Your task to perform on an android device: change your default location settings in chrome Image 0: 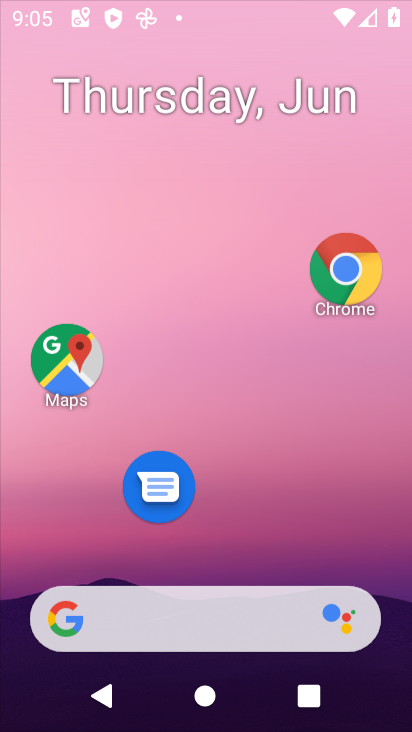
Step 0: click (274, 160)
Your task to perform on an android device: change your default location settings in chrome Image 1: 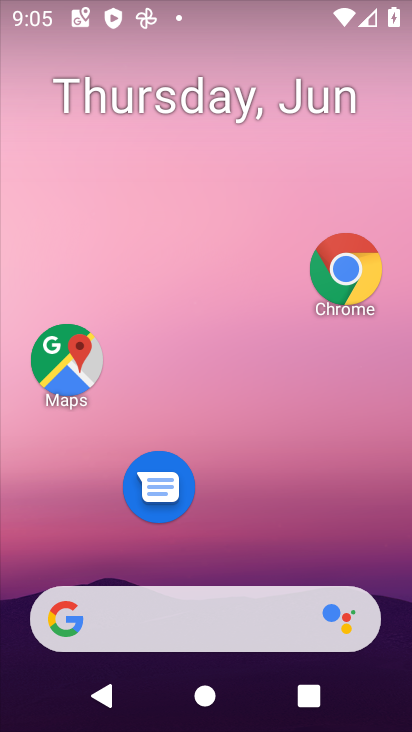
Step 1: drag from (211, 552) to (182, 7)
Your task to perform on an android device: change your default location settings in chrome Image 2: 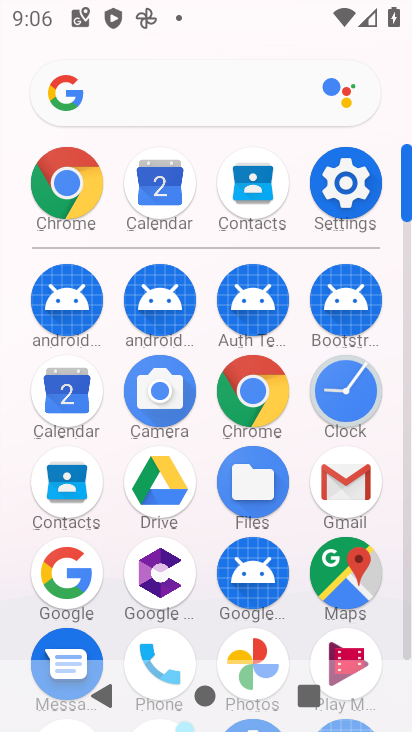
Step 2: drag from (213, 514) to (204, 108)
Your task to perform on an android device: change your default location settings in chrome Image 3: 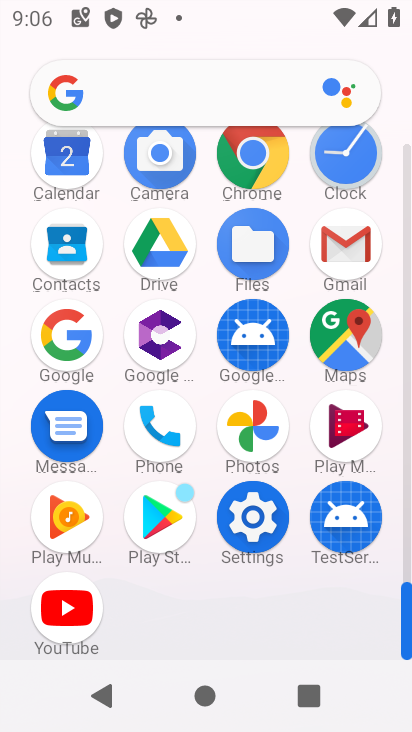
Step 3: click (251, 151)
Your task to perform on an android device: change your default location settings in chrome Image 4: 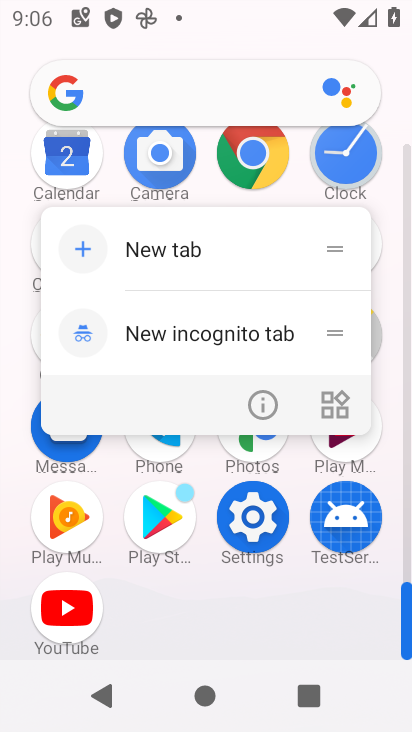
Step 4: click (255, 399)
Your task to perform on an android device: change your default location settings in chrome Image 5: 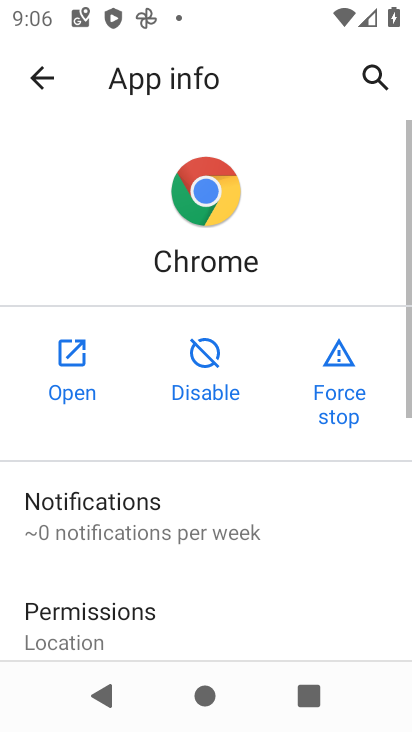
Step 5: click (70, 358)
Your task to perform on an android device: change your default location settings in chrome Image 6: 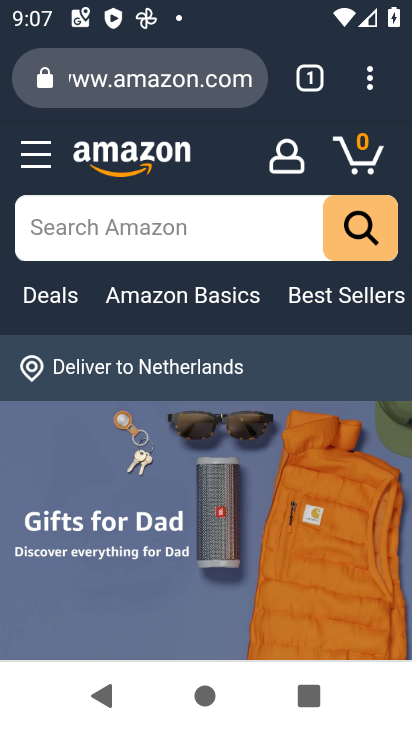
Step 6: drag from (374, 78) to (196, 544)
Your task to perform on an android device: change your default location settings in chrome Image 7: 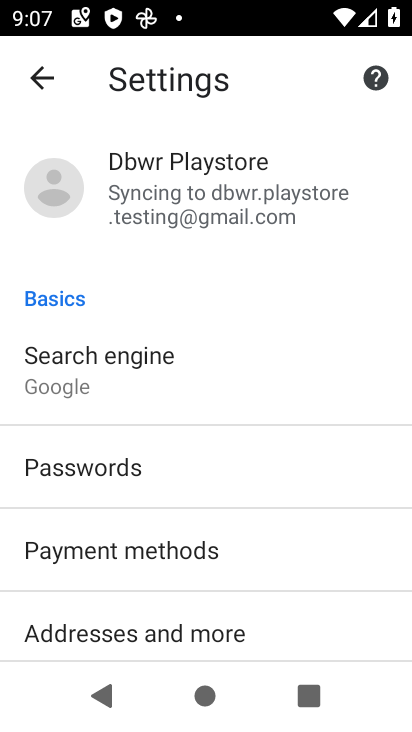
Step 7: drag from (200, 583) to (217, 110)
Your task to perform on an android device: change your default location settings in chrome Image 8: 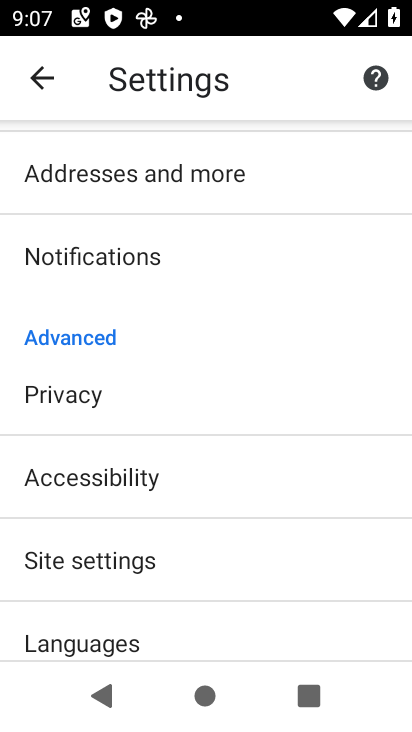
Step 8: drag from (179, 580) to (195, 308)
Your task to perform on an android device: change your default location settings in chrome Image 9: 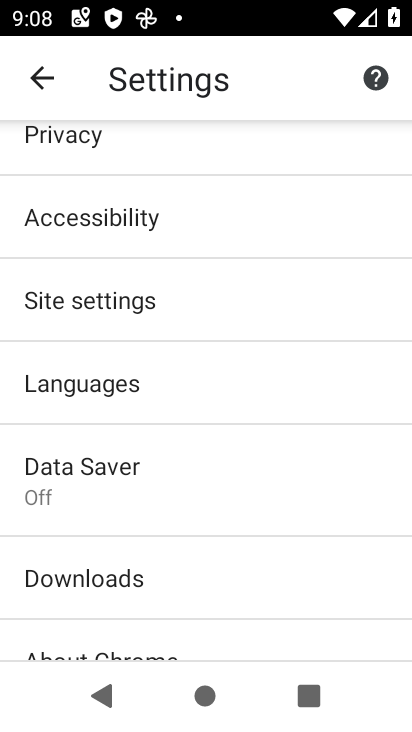
Step 9: click (145, 281)
Your task to perform on an android device: change your default location settings in chrome Image 10: 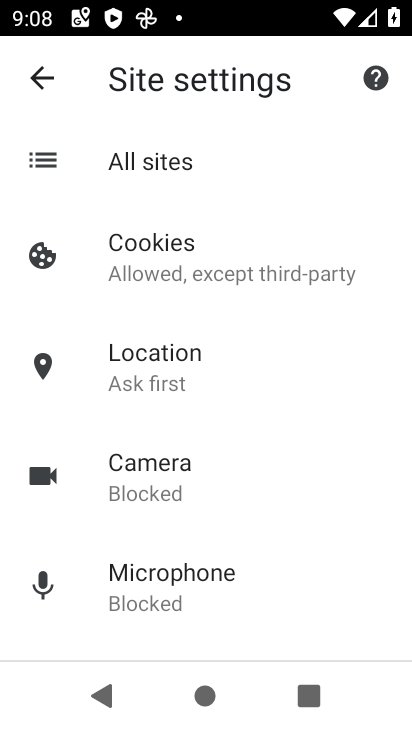
Step 10: click (197, 377)
Your task to perform on an android device: change your default location settings in chrome Image 11: 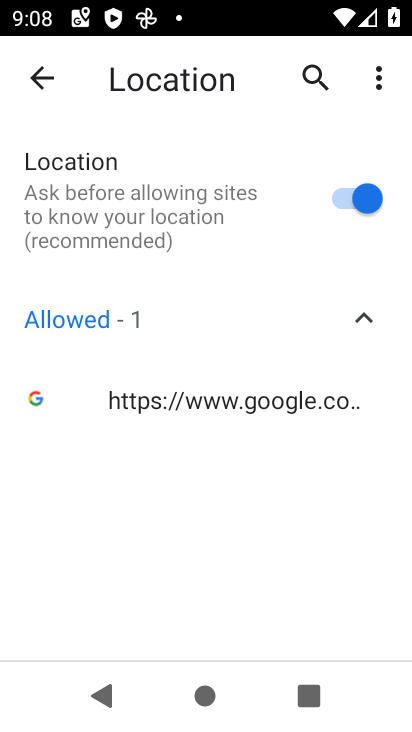
Step 11: drag from (193, 480) to (245, 141)
Your task to perform on an android device: change your default location settings in chrome Image 12: 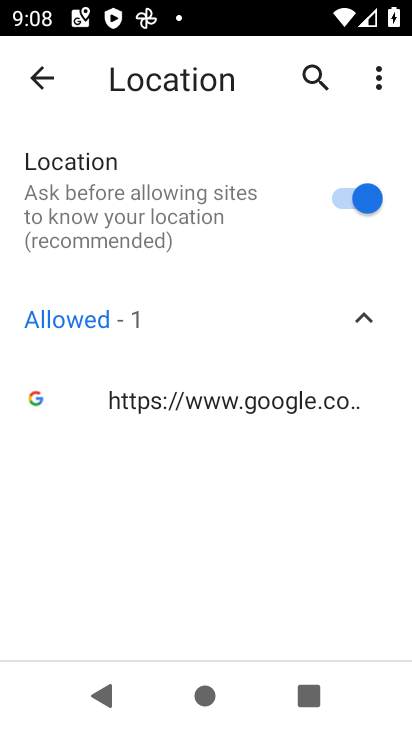
Step 12: drag from (229, 570) to (236, 115)
Your task to perform on an android device: change your default location settings in chrome Image 13: 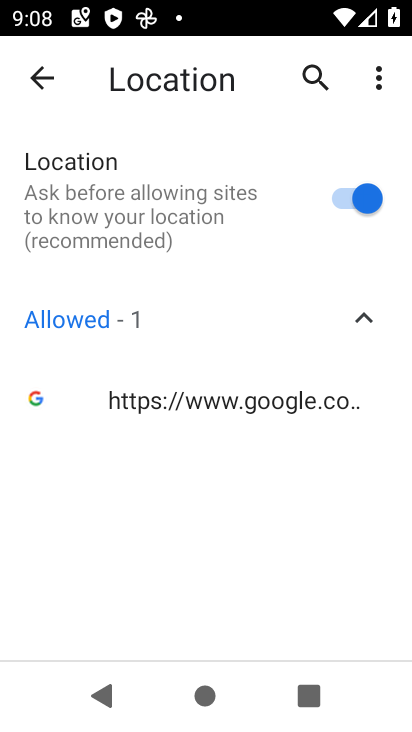
Step 13: drag from (199, 578) to (269, 195)
Your task to perform on an android device: change your default location settings in chrome Image 14: 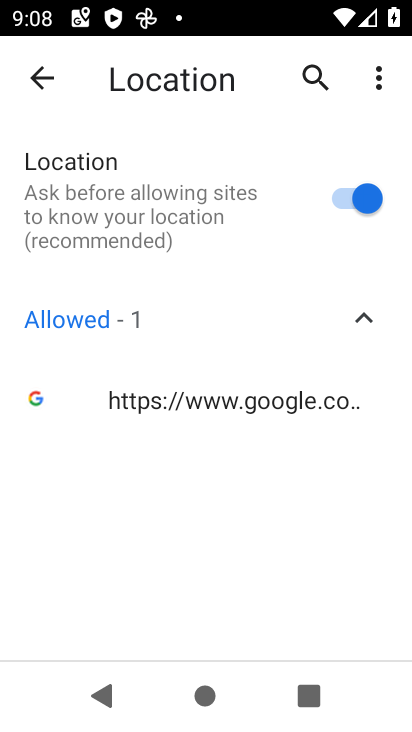
Step 14: click (354, 189)
Your task to perform on an android device: change your default location settings in chrome Image 15: 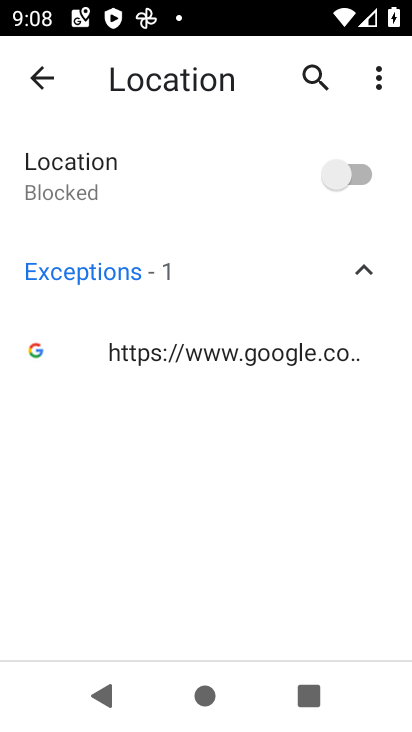
Step 15: task complete